Your task to perform on an android device: Go to sound settings Image 0: 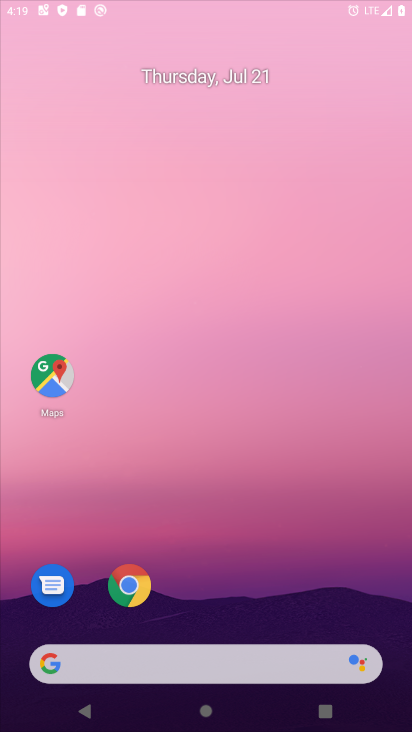
Step 0: click (303, 570)
Your task to perform on an android device: Go to sound settings Image 1: 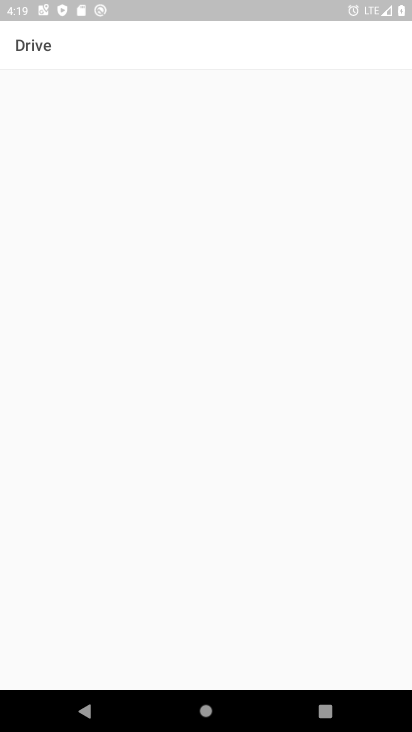
Step 1: drag from (270, 8) to (260, 427)
Your task to perform on an android device: Go to sound settings Image 2: 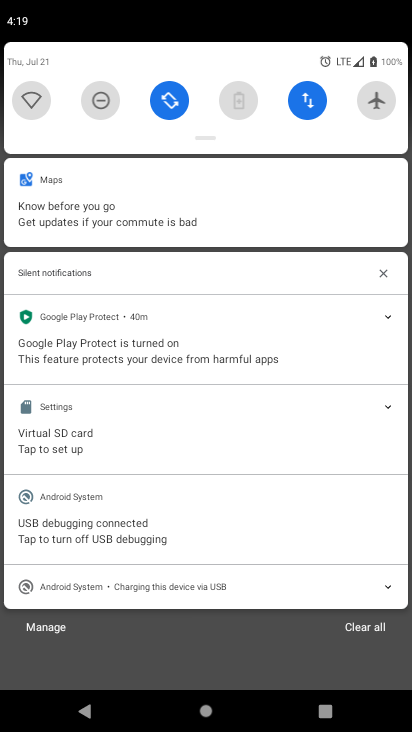
Step 2: press home button
Your task to perform on an android device: Go to sound settings Image 3: 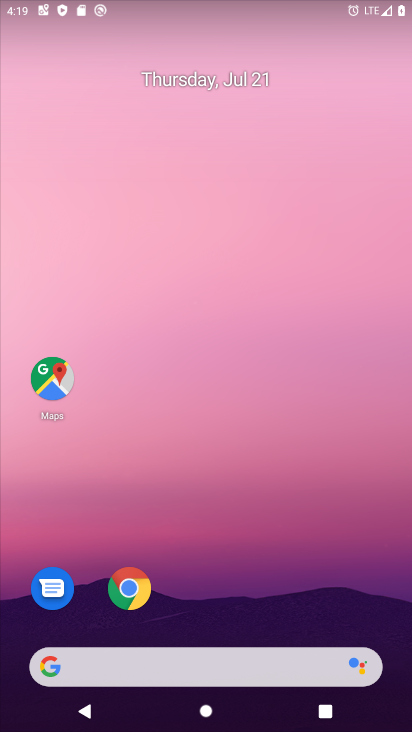
Step 3: drag from (328, 624) to (284, 106)
Your task to perform on an android device: Go to sound settings Image 4: 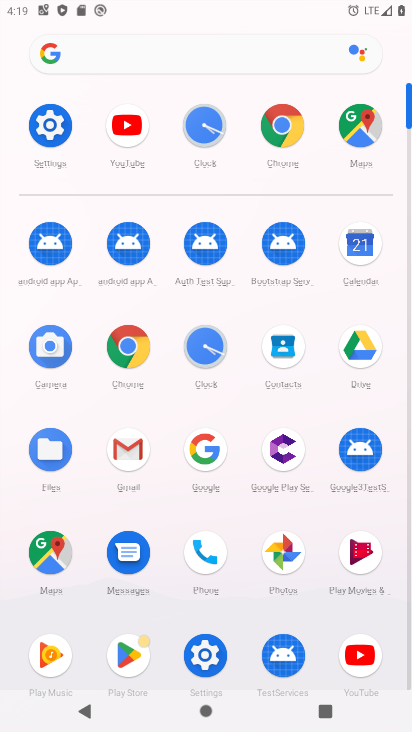
Step 4: click (211, 649)
Your task to perform on an android device: Go to sound settings Image 5: 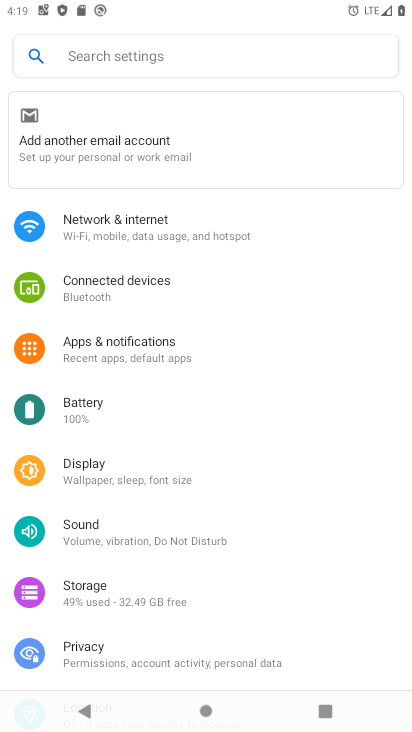
Step 5: click (91, 521)
Your task to perform on an android device: Go to sound settings Image 6: 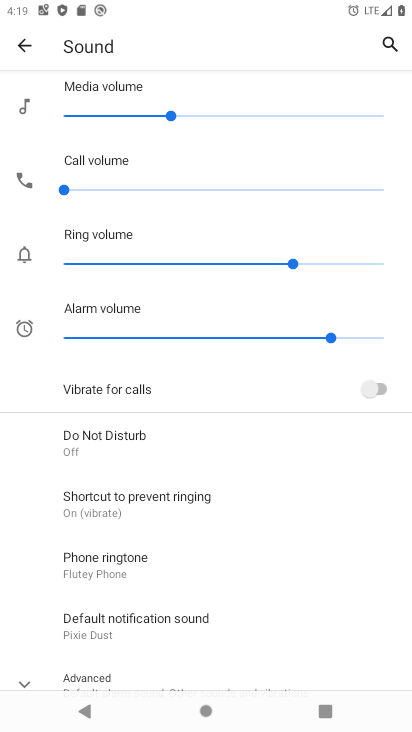
Step 6: task complete